Your task to perform on an android device: empty trash in the gmail app Image 0: 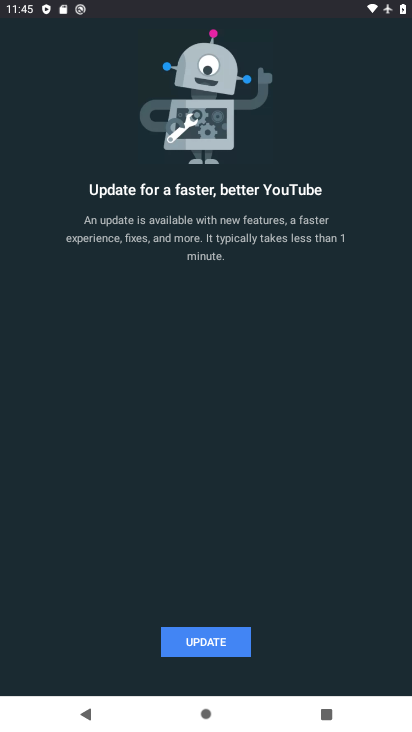
Step 0: press home button
Your task to perform on an android device: empty trash in the gmail app Image 1: 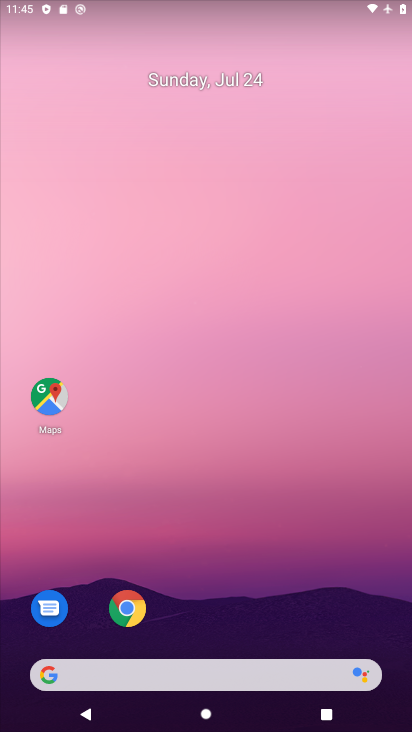
Step 1: drag from (228, 587) to (388, 148)
Your task to perform on an android device: empty trash in the gmail app Image 2: 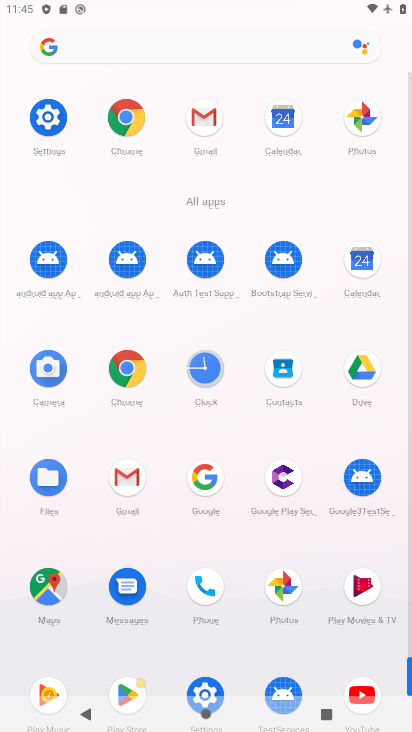
Step 2: click (127, 490)
Your task to perform on an android device: empty trash in the gmail app Image 3: 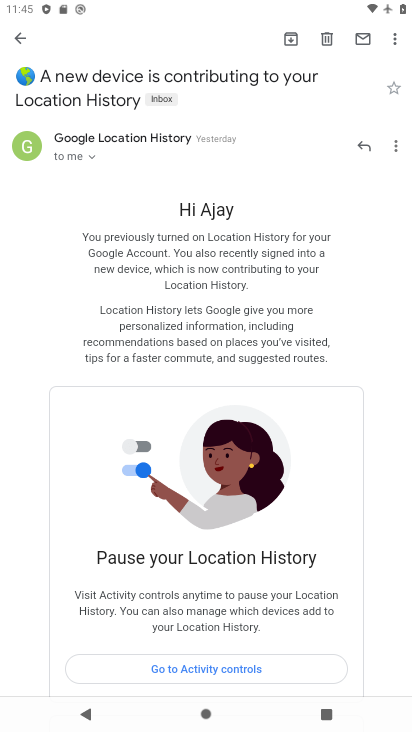
Step 3: click (18, 42)
Your task to perform on an android device: empty trash in the gmail app Image 4: 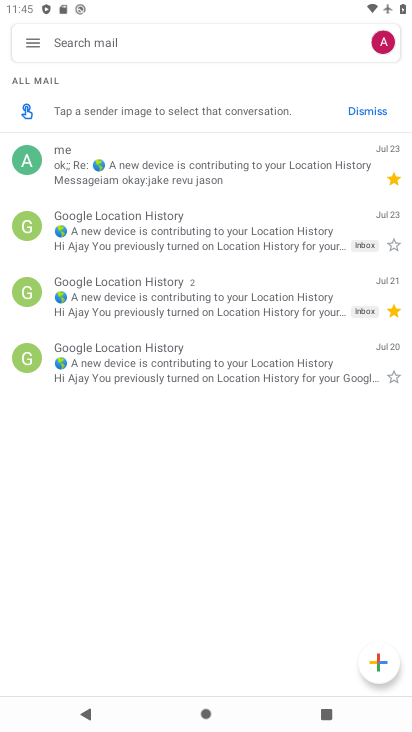
Step 4: click (29, 49)
Your task to perform on an android device: empty trash in the gmail app Image 5: 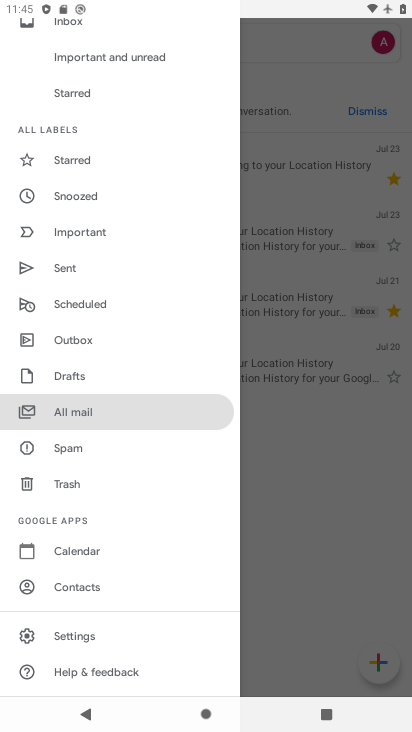
Step 5: click (80, 482)
Your task to perform on an android device: empty trash in the gmail app Image 6: 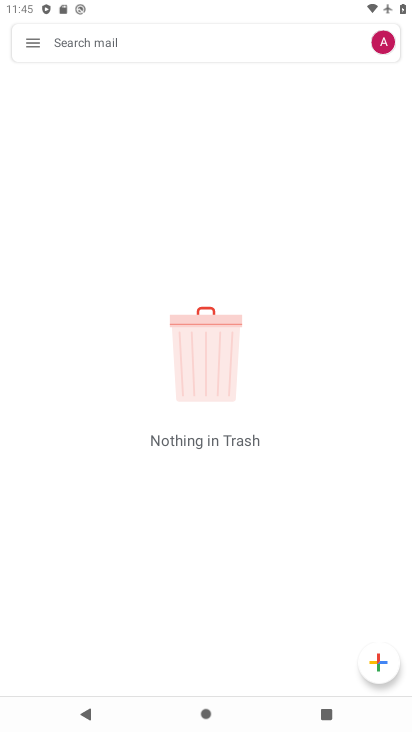
Step 6: task complete